Your task to perform on an android device: Open privacy settings Image 0: 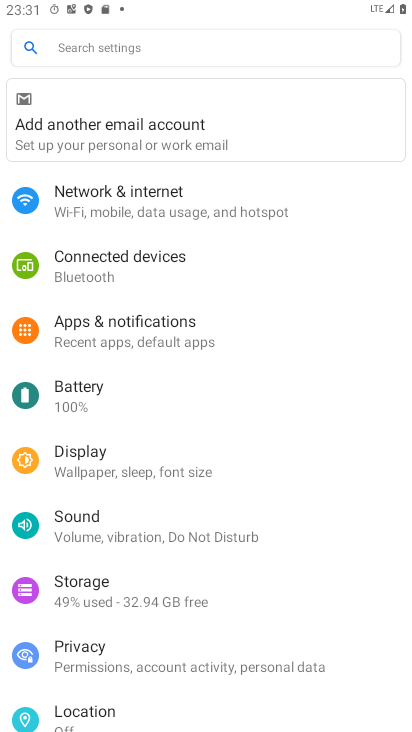
Step 0: click (89, 666)
Your task to perform on an android device: Open privacy settings Image 1: 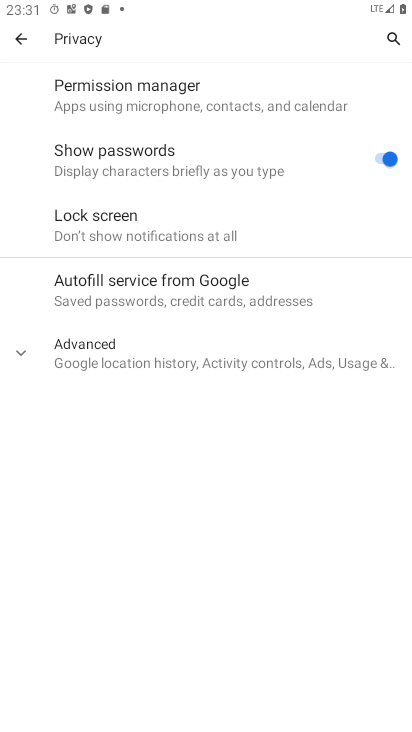
Step 1: task complete